Your task to perform on an android device: Open Youtube and go to "Your channel" Image 0: 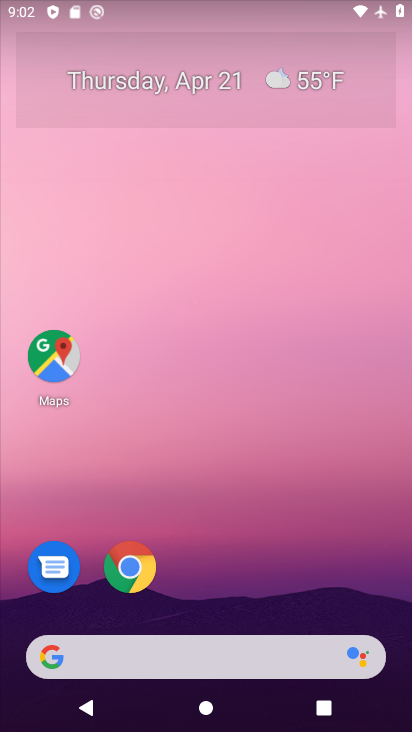
Step 0: drag from (338, 518) to (308, 91)
Your task to perform on an android device: Open Youtube and go to "Your channel" Image 1: 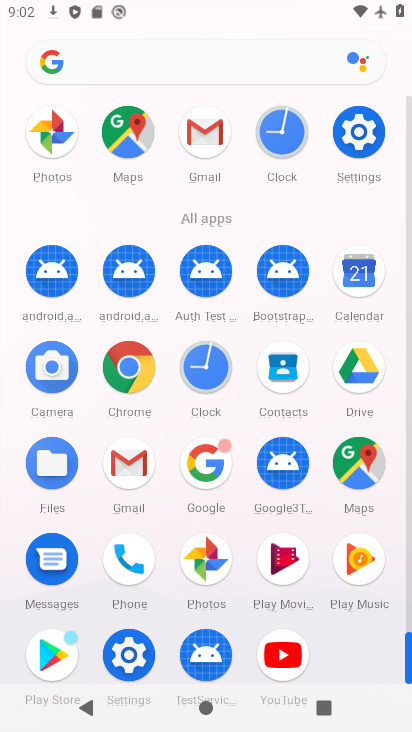
Step 1: click (282, 659)
Your task to perform on an android device: Open Youtube and go to "Your channel" Image 2: 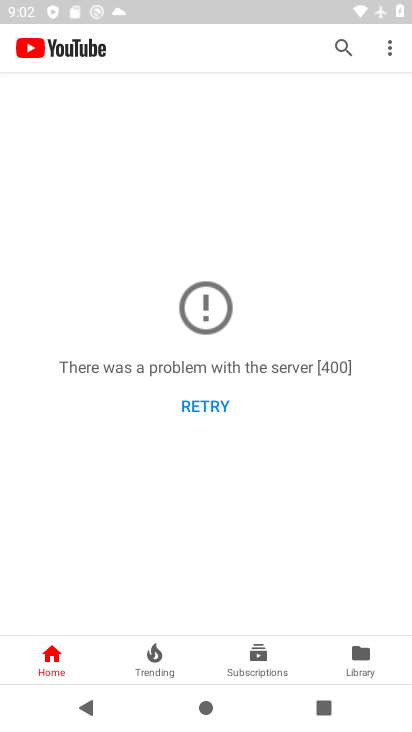
Step 2: click (389, 50)
Your task to perform on an android device: Open Youtube and go to "Your channel" Image 3: 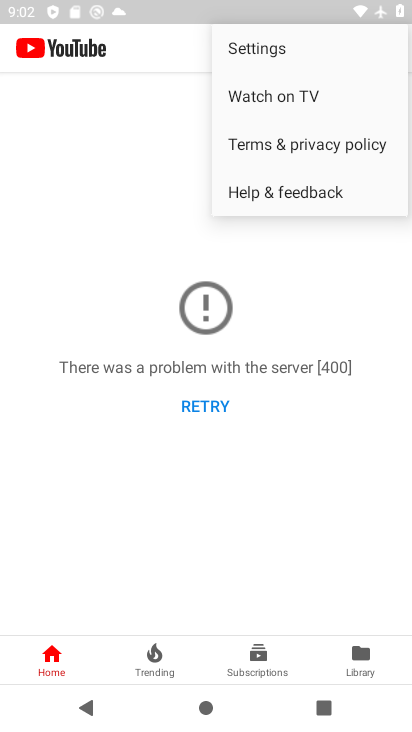
Step 3: click (255, 45)
Your task to perform on an android device: Open Youtube and go to "Your channel" Image 4: 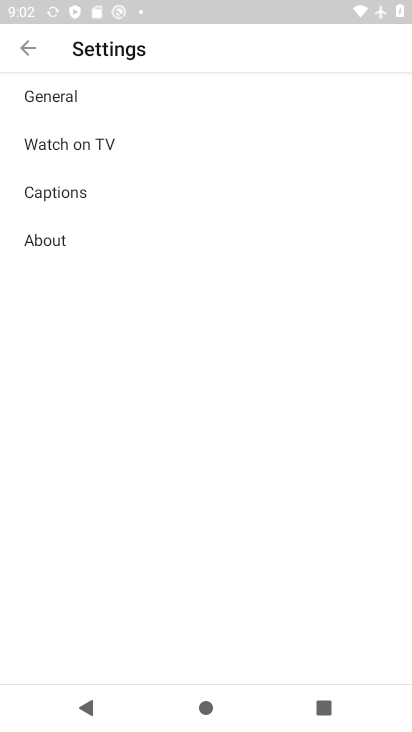
Step 4: click (52, 95)
Your task to perform on an android device: Open Youtube and go to "Your channel" Image 5: 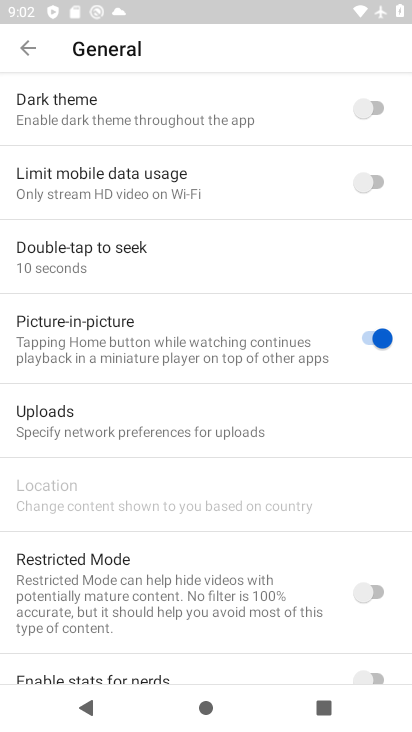
Step 5: drag from (171, 481) to (240, 126)
Your task to perform on an android device: Open Youtube and go to "Your channel" Image 6: 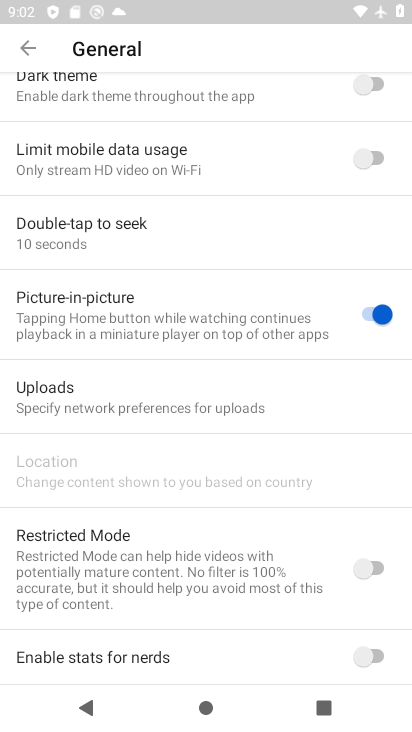
Step 6: click (87, 712)
Your task to perform on an android device: Open Youtube and go to "Your channel" Image 7: 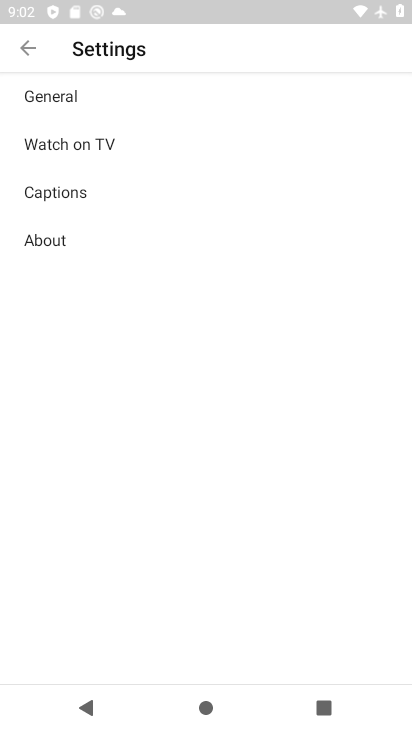
Step 7: click (87, 712)
Your task to perform on an android device: Open Youtube and go to "Your channel" Image 8: 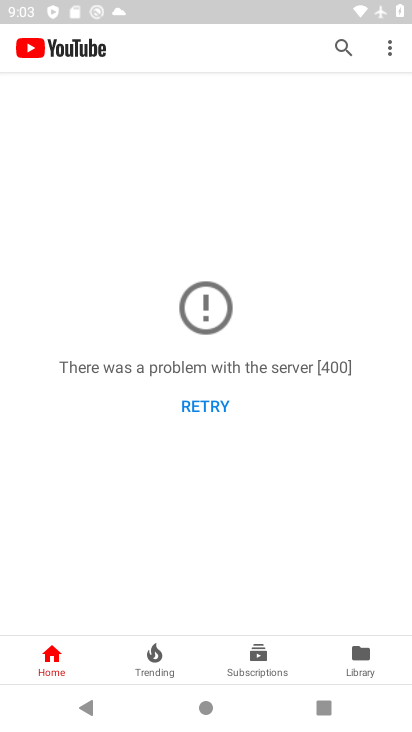
Step 8: click (359, 656)
Your task to perform on an android device: Open Youtube and go to "Your channel" Image 9: 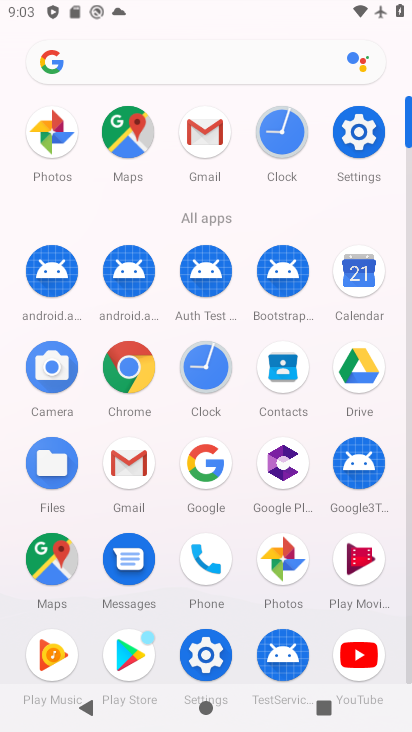
Step 9: task complete